Your task to perform on an android device: open chrome and create a bookmark for the current page Image 0: 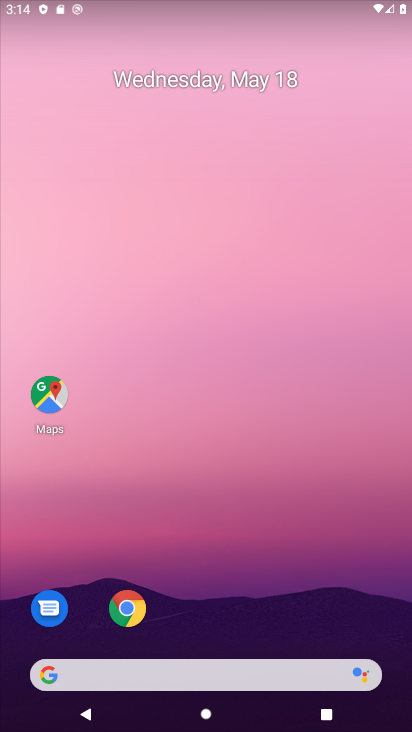
Step 0: click (129, 611)
Your task to perform on an android device: open chrome and create a bookmark for the current page Image 1: 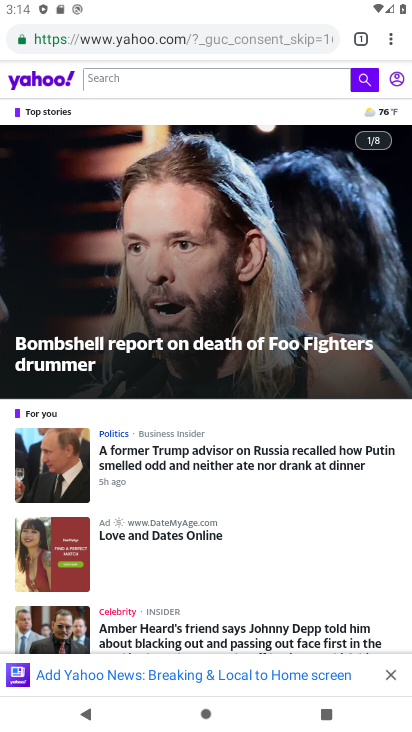
Step 1: click (400, 40)
Your task to perform on an android device: open chrome and create a bookmark for the current page Image 2: 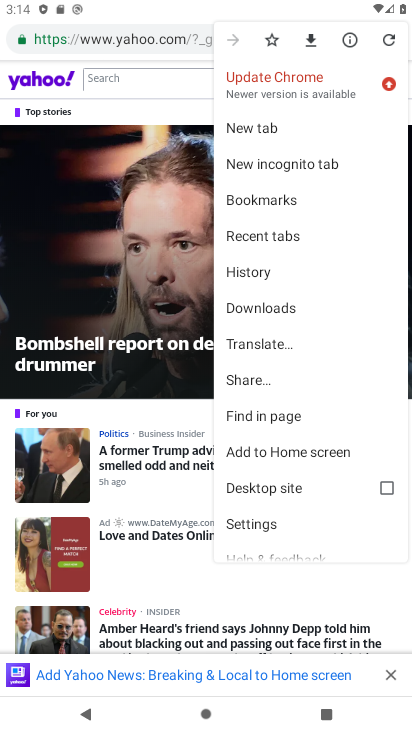
Step 2: click (261, 40)
Your task to perform on an android device: open chrome and create a bookmark for the current page Image 3: 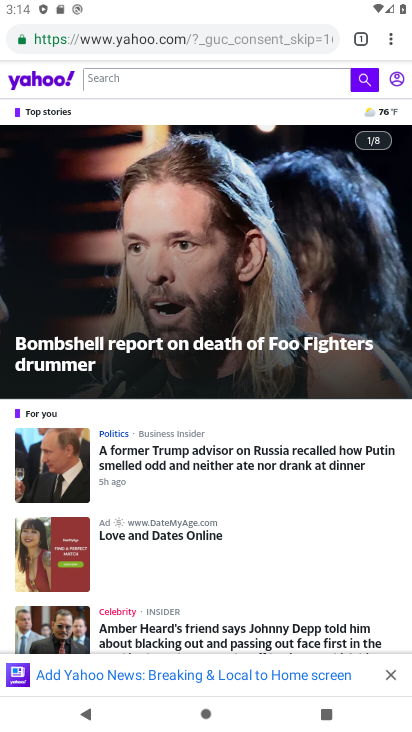
Step 3: task complete